Your task to perform on an android device: clear all cookies in the chrome app Image 0: 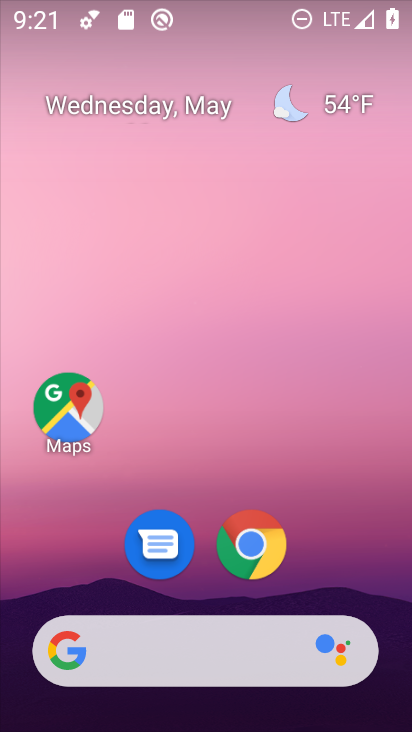
Step 0: click (251, 558)
Your task to perform on an android device: clear all cookies in the chrome app Image 1: 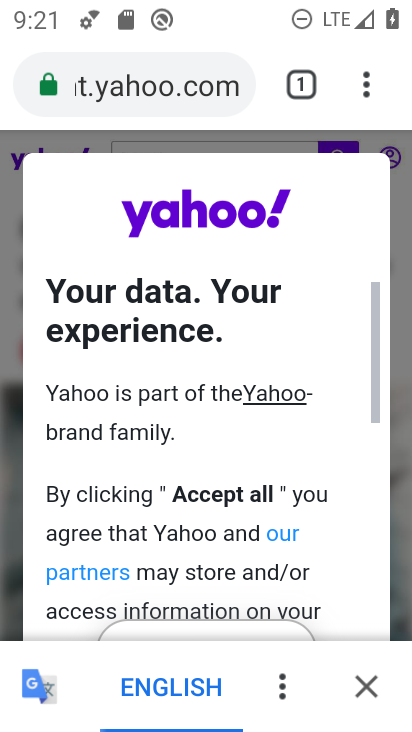
Step 1: click (354, 76)
Your task to perform on an android device: clear all cookies in the chrome app Image 2: 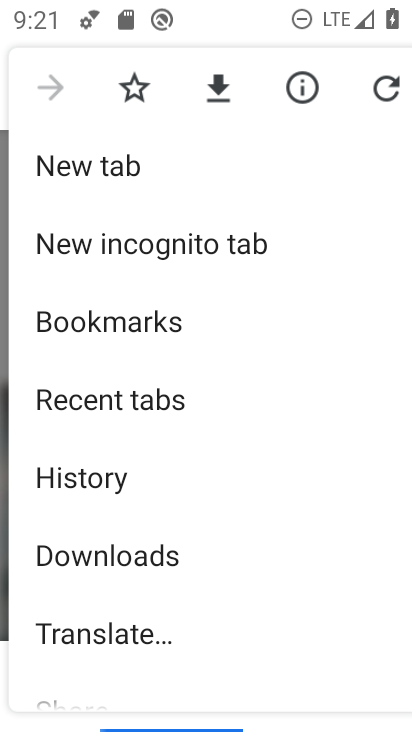
Step 2: click (80, 601)
Your task to perform on an android device: clear all cookies in the chrome app Image 3: 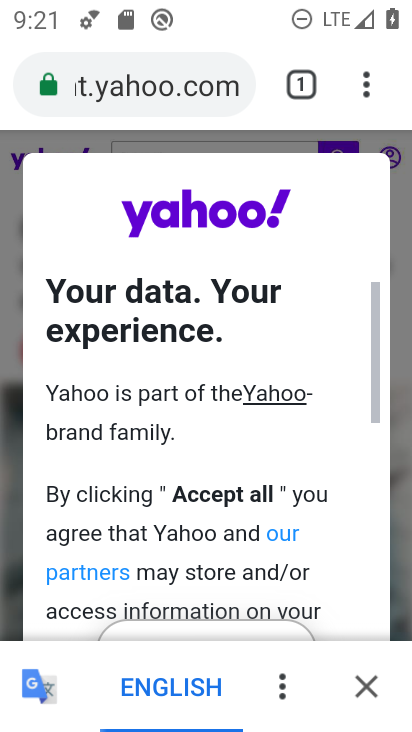
Step 3: click (353, 71)
Your task to perform on an android device: clear all cookies in the chrome app Image 4: 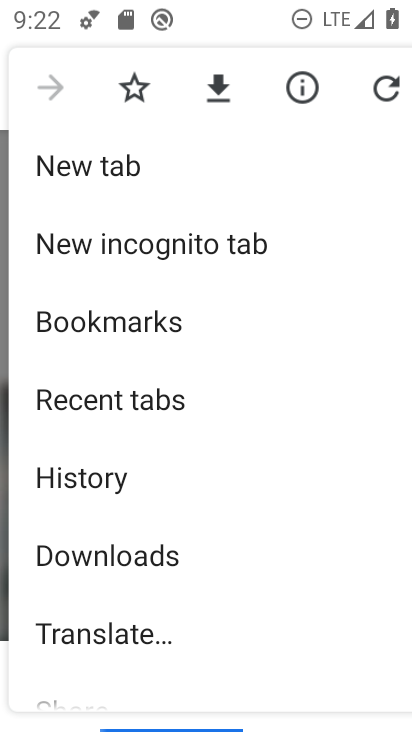
Step 4: drag from (133, 560) to (183, 180)
Your task to perform on an android device: clear all cookies in the chrome app Image 5: 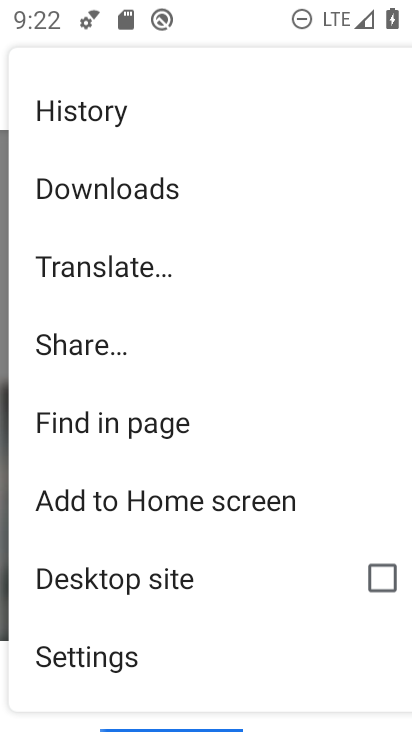
Step 5: click (147, 676)
Your task to perform on an android device: clear all cookies in the chrome app Image 6: 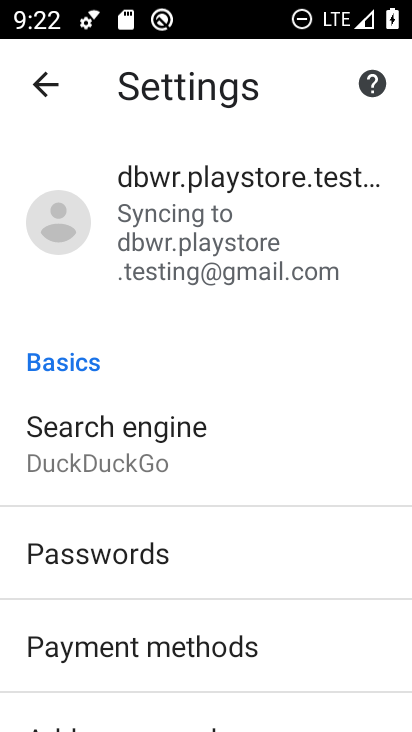
Step 6: drag from (145, 635) to (178, 261)
Your task to perform on an android device: clear all cookies in the chrome app Image 7: 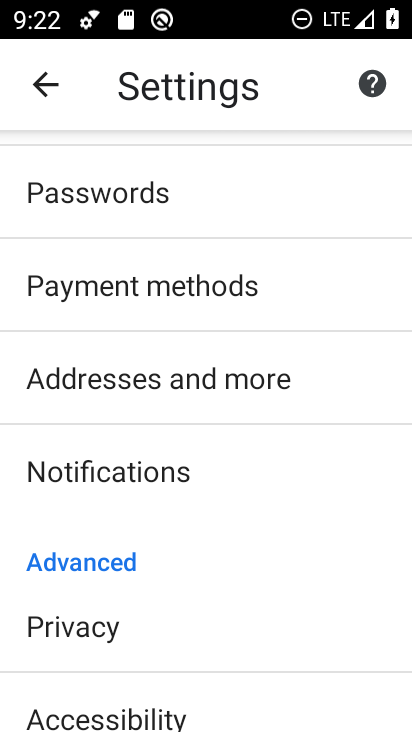
Step 7: drag from (178, 667) to (164, 341)
Your task to perform on an android device: clear all cookies in the chrome app Image 8: 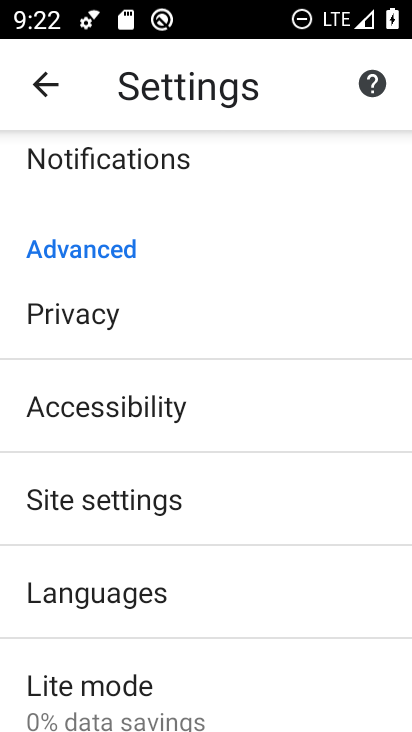
Step 8: drag from (129, 628) to (211, 226)
Your task to perform on an android device: clear all cookies in the chrome app Image 9: 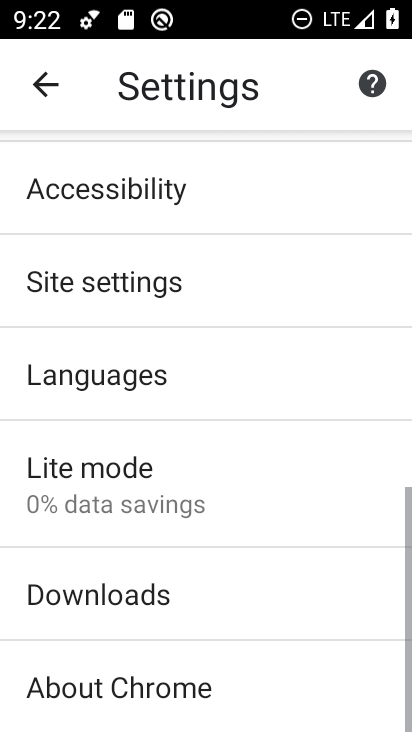
Step 9: drag from (150, 587) to (238, 184)
Your task to perform on an android device: clear all cookies in the chrome app Image 10: 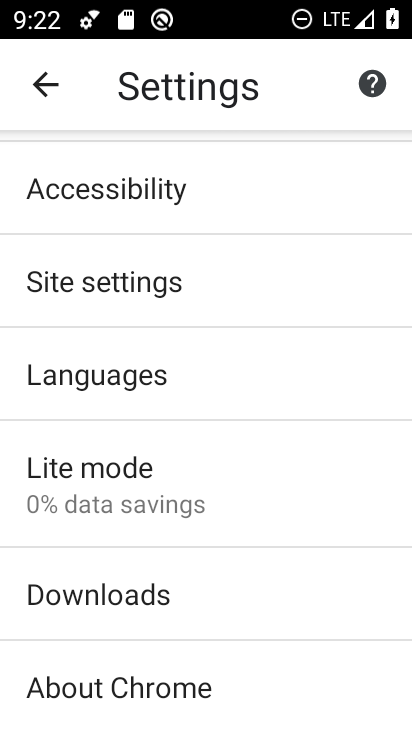
Step 10: drag from (201, 664) to (227, 297)
Your task to perform on an android device: clear all cookies in the chrome app Image 11: 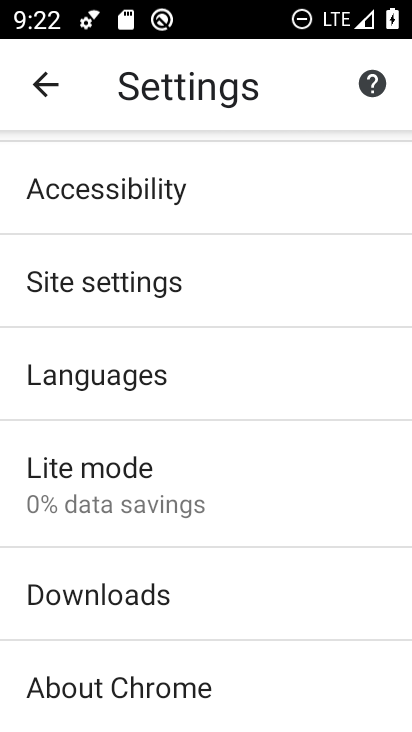
Step 11: click (92, 301)
Your task to perform on an android device: clear all cookies in the chrome app Image 12: 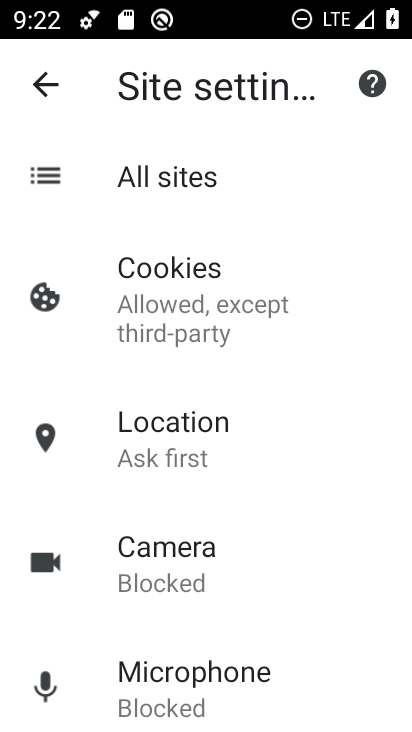
Step 12: click (44, 106)
Your task to perform on an android device: clear all cookies in the chrome app Image 13: 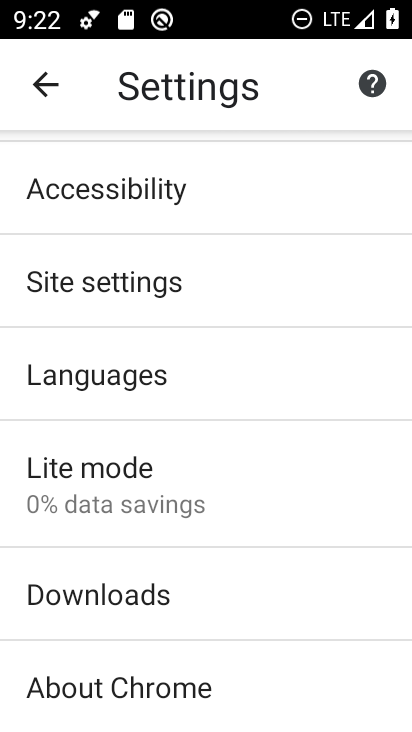
Step 13: drag from (150, 223) to (279, 660)
Your task to perform on an android device: clear all cookies in the chrome app Image 14: 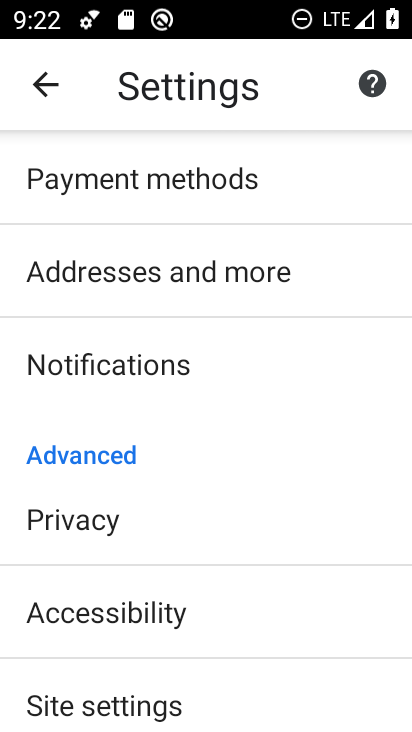
Step 14: drag from (197, 264) to (223, 618)
Your task to perform on an android device: clear all cookies in the chrome app Image 15: 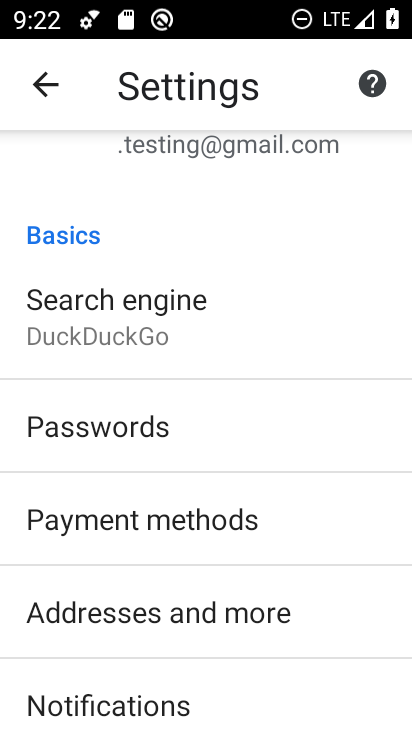
Step 15: drag from (258, 294) to (234, 726)
Your task to perform on an android device: clear all cookies in the chrome app Image 16: 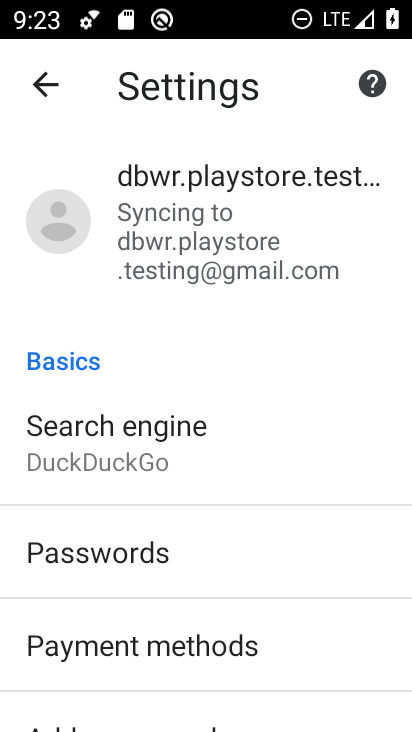
Step 16: drag from (167, 594) to (250, 239)
Your task to perform on an android device: clear all cookies in the chrome app Image 17: 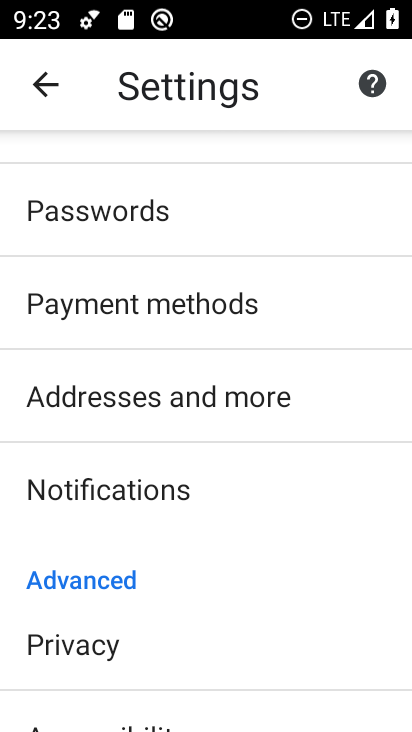
Step 17: drag from (152, 300) to (157, 661)
Your task to perform on an android device: clear all cookies in the chrome app Image 18: 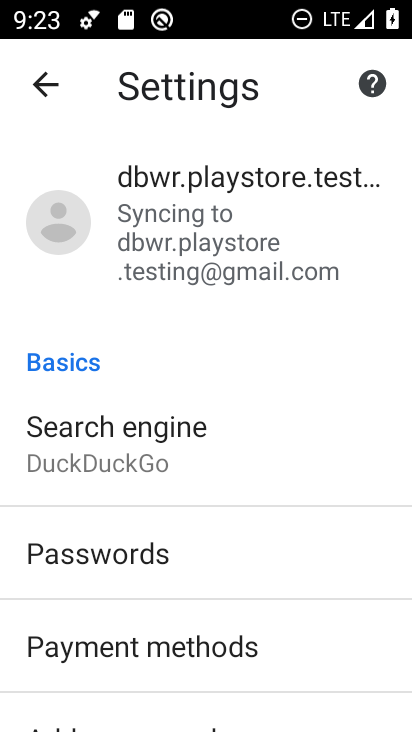
Step 18: drag from (151, 589) to (187, 260)
Your task to perform on an android device: clear all cookies in the chrome app Image 19: 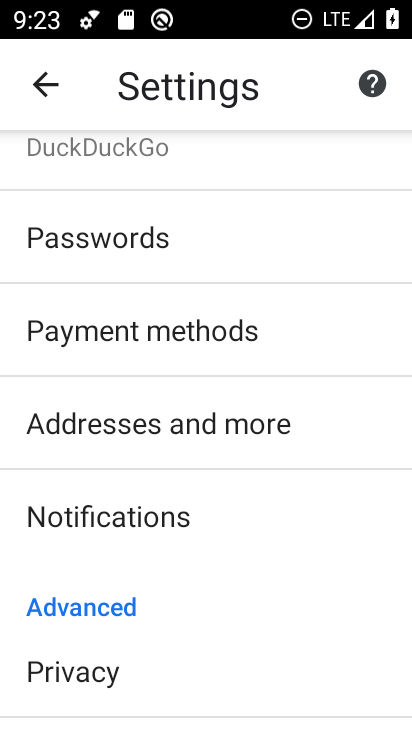
Step 19: drag from (176, 643) to (208, 296)
Your task to perform on an android device: clear all cookies in the chrome app Image 20: 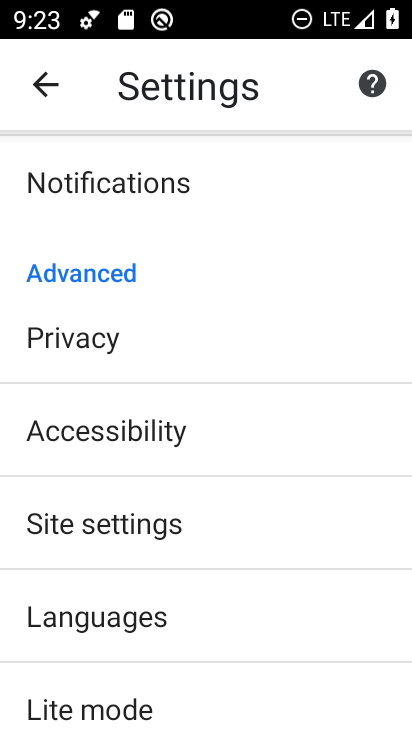
Step 20: click (56, 81)
Your task to perform on an android device: clear all cookies in the chrome app Image 21: 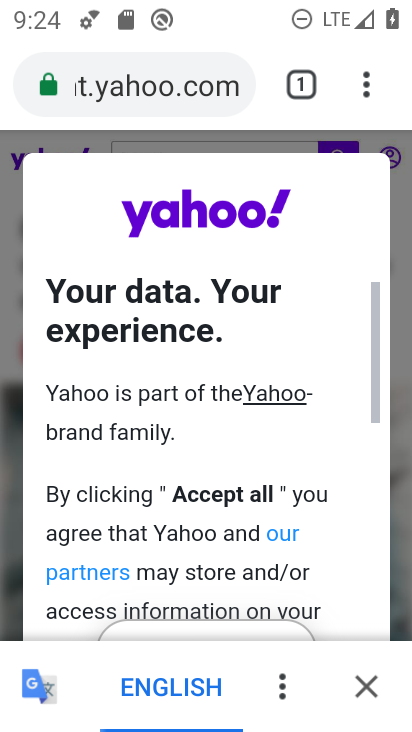
Step 21: click (355, 77)
Your task to perform on an android device: clear all cookies in the chrome app Image 22: 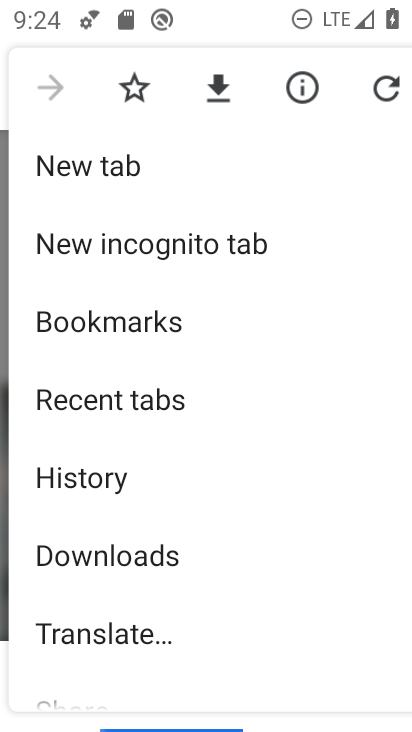
Step 22: click (200, 485)
Your task to perform on an android device: clear all cookies in the chrome app Image 23: 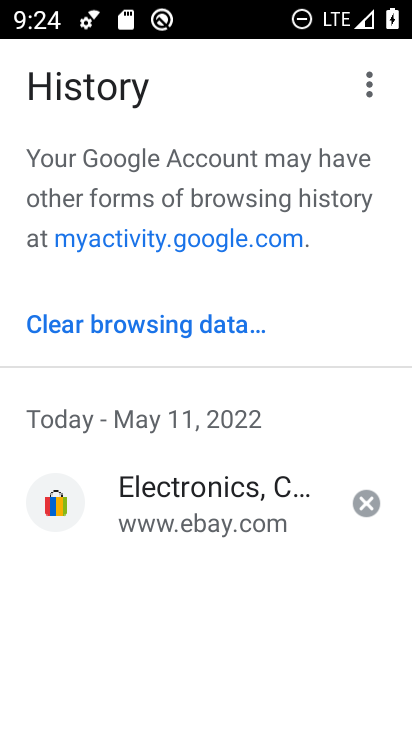
Step 23: click (93, 321)
Your task to perform on an android device: clear all cookies in the chrome app Image 24: 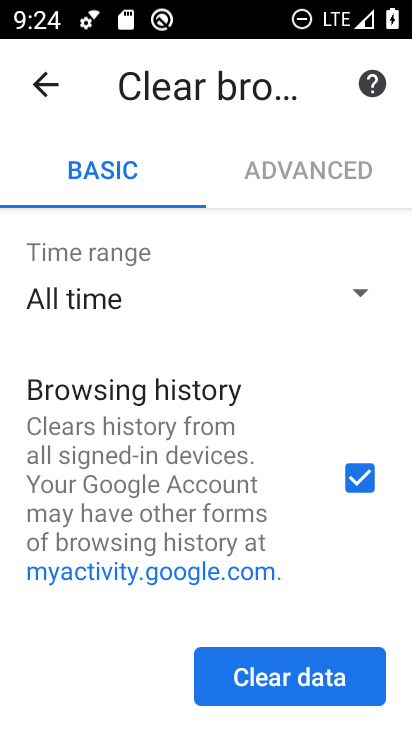
Step 24: click (354, 479)
Your task to perform on an android device: clear all cookies in the chrome app Image 25: 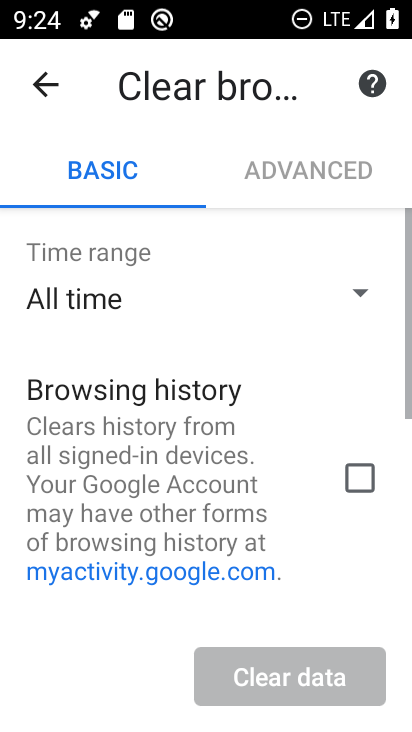
Step 25: drag from (175, 511) to (208, 195)
Your task to perform on an android device: clear all cookies in the chrome app Image 26: 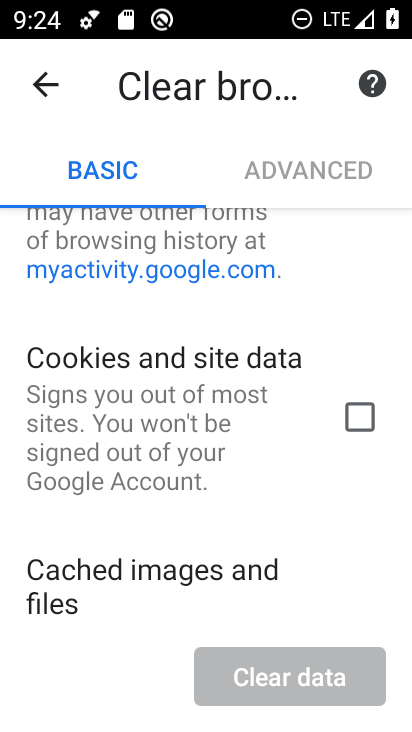
Step 26: click (352, 405)
Your task to perform on an android device: clear all cookies in the chrome app Image 27: 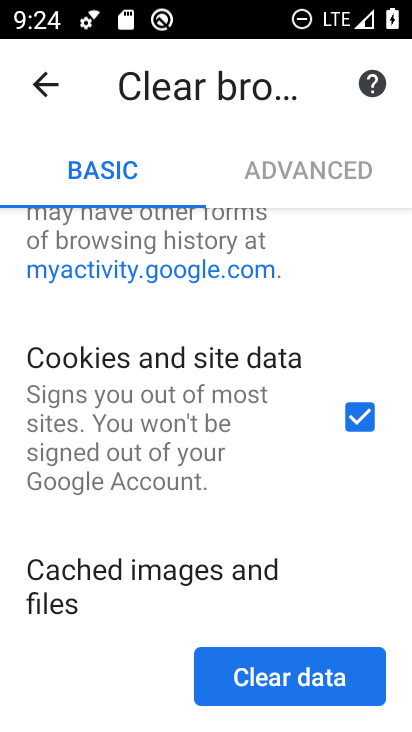
Step 27: click (269, 693)
Your task to perform on an android device: clear all cookies in the chrome app Image 28: 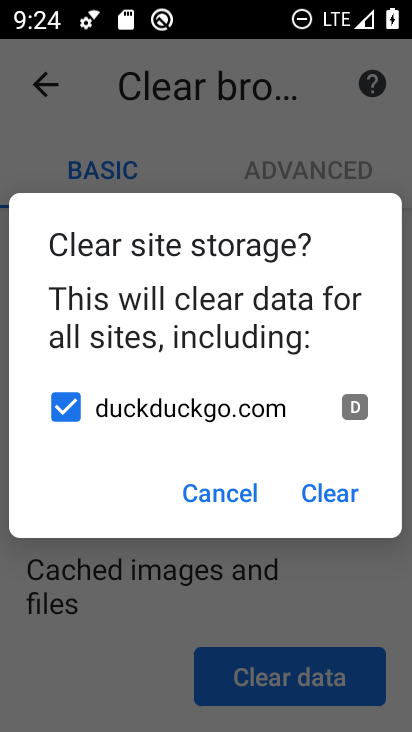
Step 28: click (319, 487)
Your task to perform on an android device: clear all cookies in the chrome app Image 29: 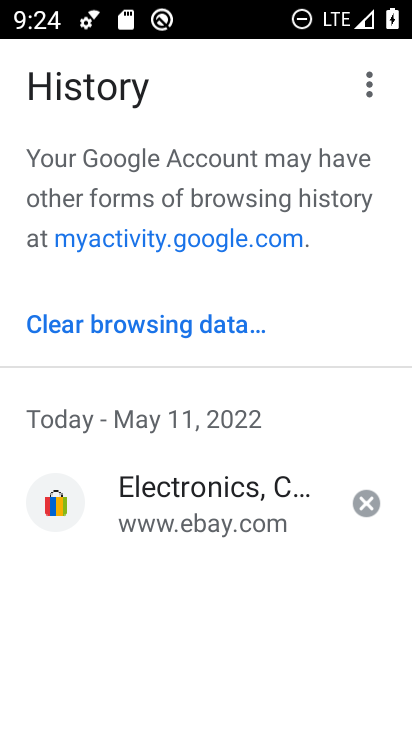
Step 29: task complete